Your task to perform on an android device: change notification settings in the gmail app Image 0: 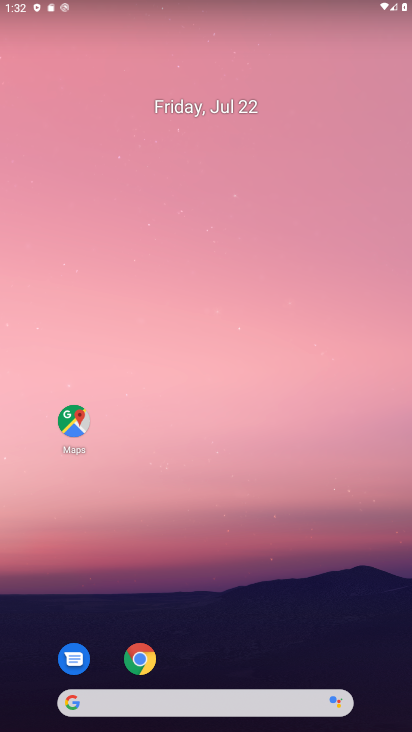
Step 0: drag from (216, 657) to (216, 89)
Your task to perform on an android device: change notification settings in the gmail app Image 1: 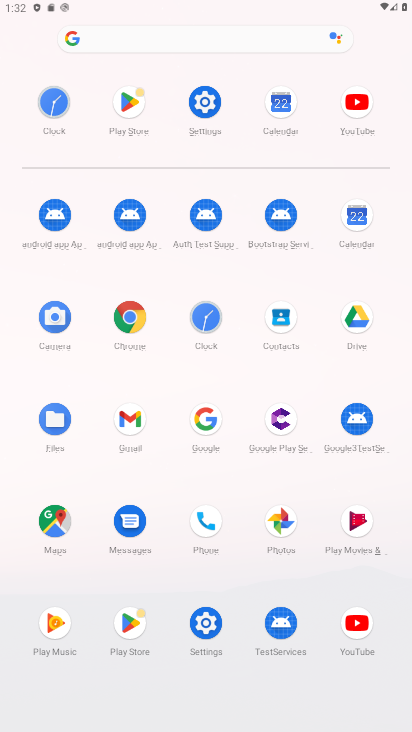
Step 1: click (208, 101)
Your task to perform on an android device: change notification settings in the gmail app Image 2: 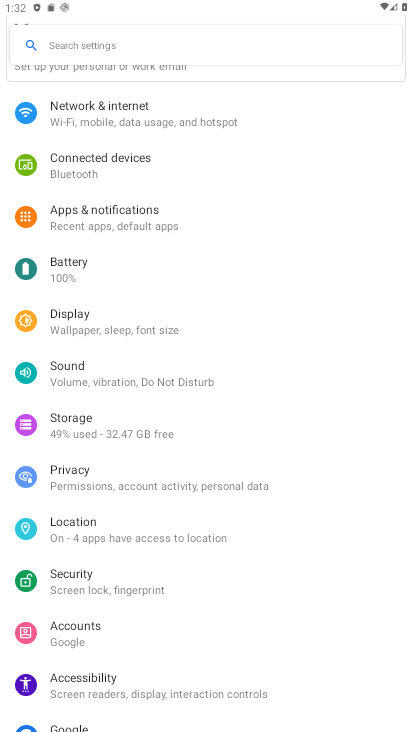
Step 2: task complete